Your task to perform on an android device: Open battery settings Image 0: 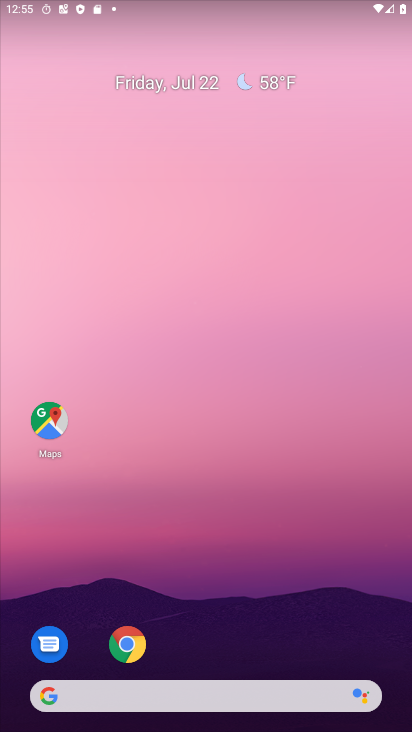
Step 0: drag from (168, 669) to (209, 445)
Your task to perform on an android device: Open battery settings Image 1: 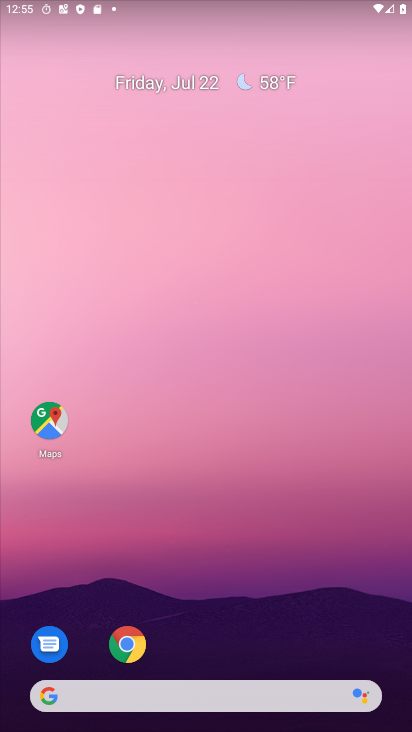
Step 1: drag from (187, 632) to (233, 171)
Your task to perform on an android device: Open battery settings Image 2: 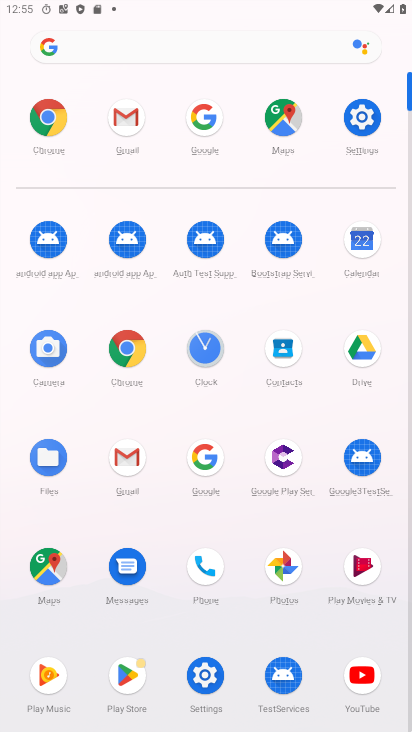
Step 2: click (202, 664)
Your task to perform on an android device: Open battery settings Image 3: 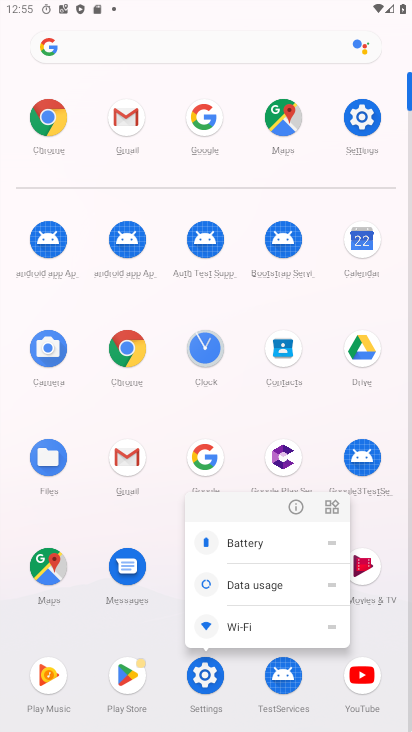
Step 3: click (296, 506)
Your task to perform on an android device: Open battery settings Image 4: 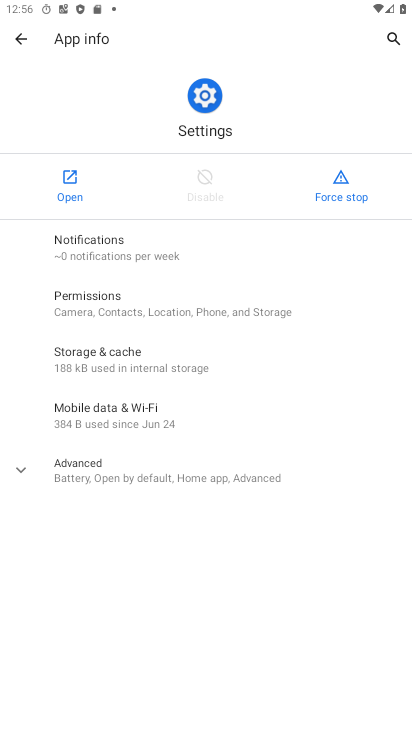
Step 4: click (71, 179)
Your task to perform on an android device: Open battery settings Image 5: 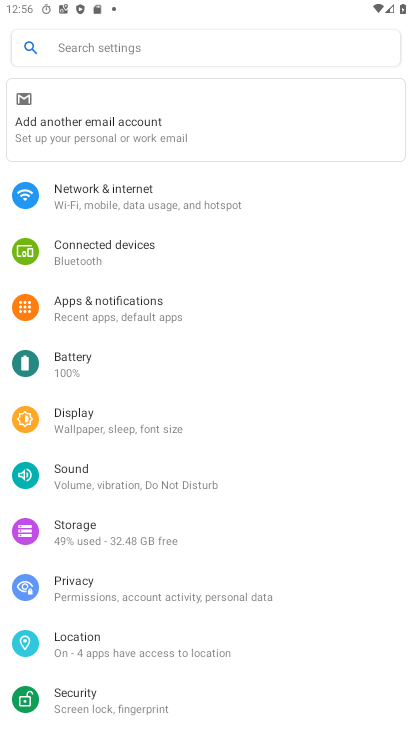
Step 5: click (111, 352)
Your task to perform on an android device: Open battery settings Image 6: 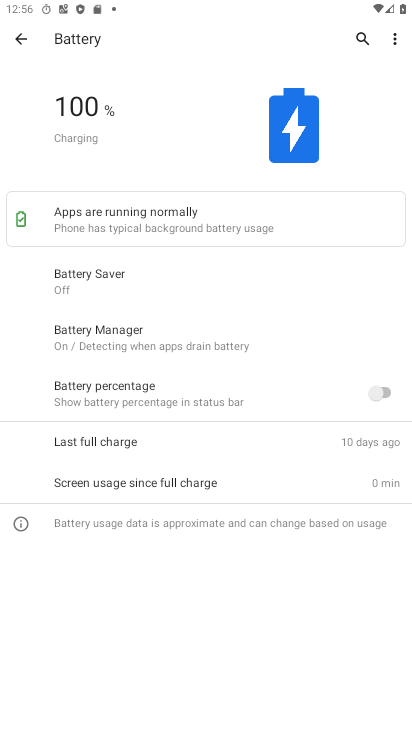
Step 6: task complete